Your task to perform on an android device: Go to calendar. Show me events next week Image 0: 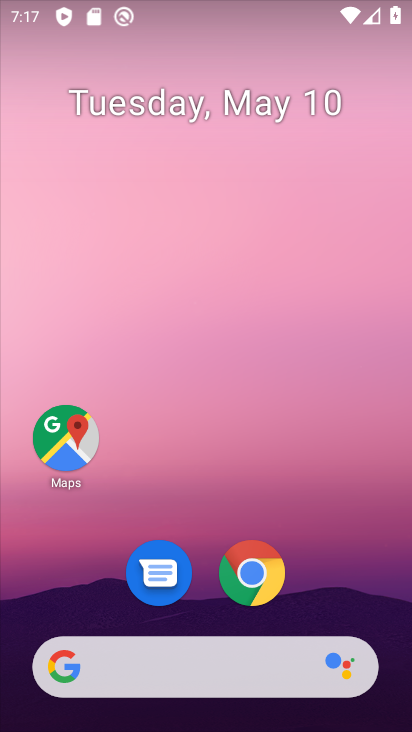
Step 0: drag from (334, 558) to (305, 165)
Your task to perform on an android device: Go to calendar. Show me events next week Image 1: 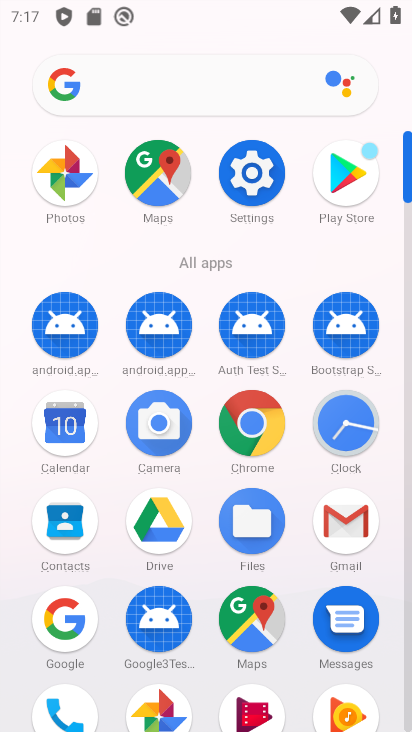
Step 1: click (79, 422)
Your task to perform on an android device: Go to calendar. Show me events next week Image 2: 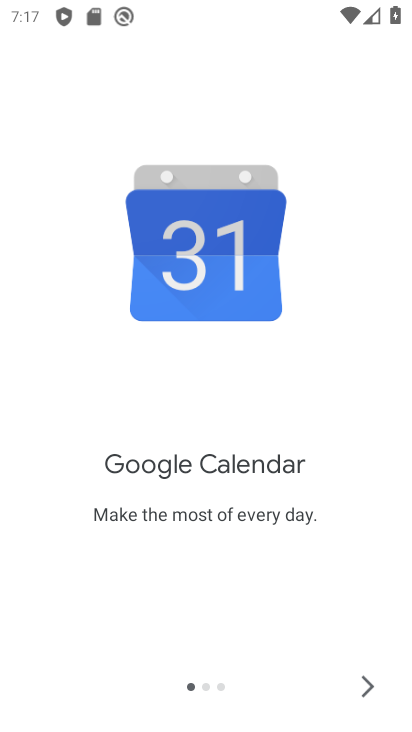
Step 2: click (376, 688)
Your task to perform on an android device: Go to calendar. Show me events next week Image 3: 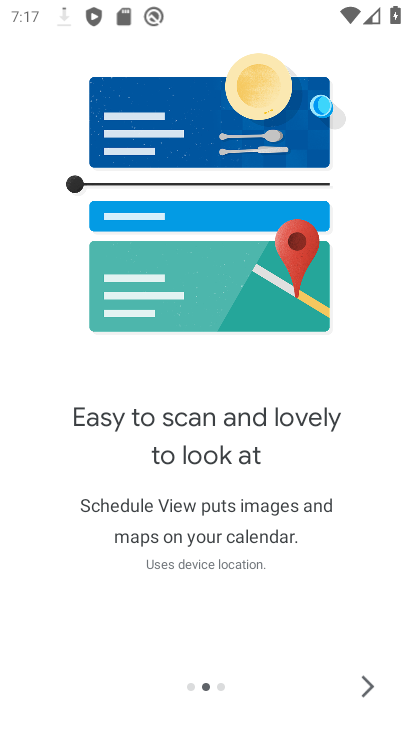
Step 3: click (371, 682)
Your task to perform on an android device: Go to calendar. Show me events next week Image 4: 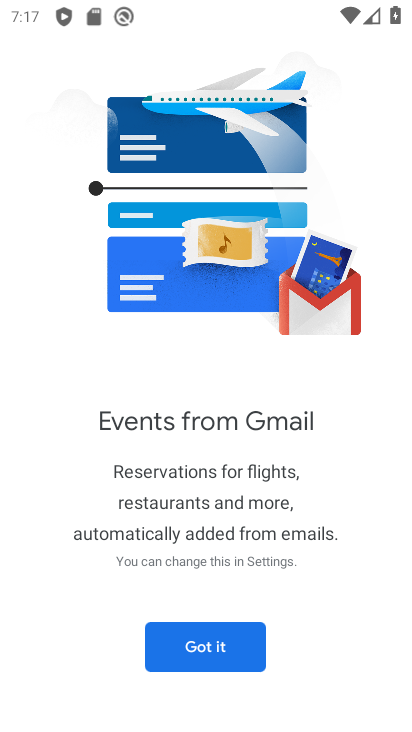
Step 4: click (226, 644)
Your task to perform on an android device: Go to calendar. Show me events next week Image 5: 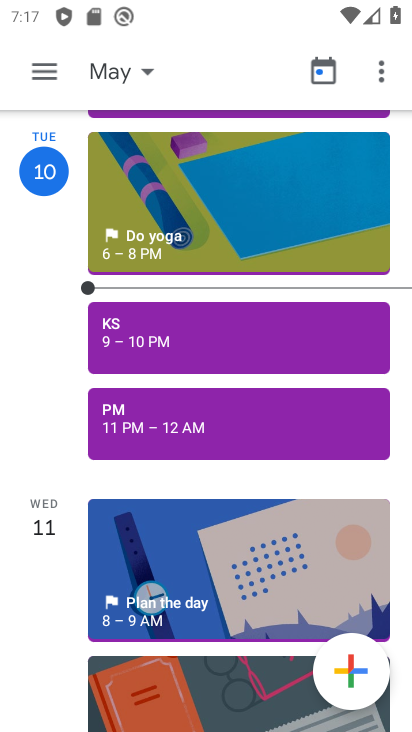
Step 5: click (116, 70)
Your task to perform on an android device: Go to calendar. Show me events next week Image 6: 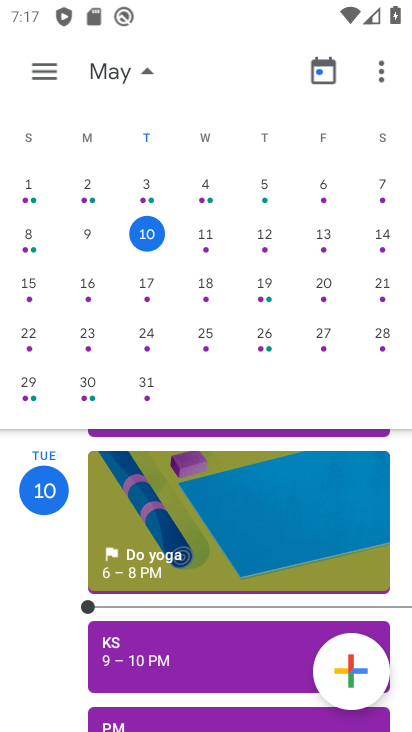
Step 6: click (31, 291)
Your task to perform on an android device: Go to calendar. Show me events next week Image 7: 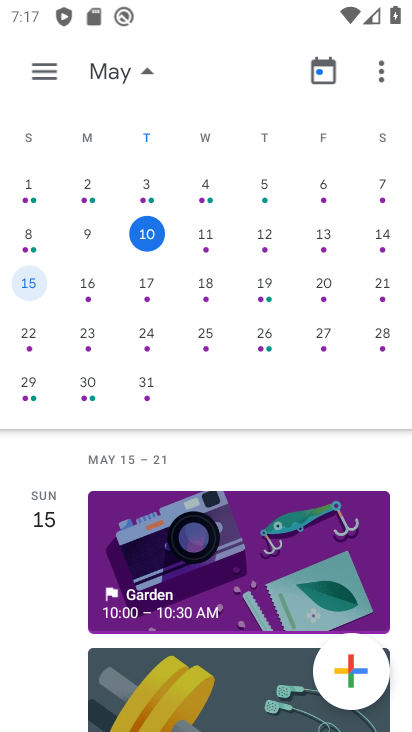
Step 7: task complete